Your task to perform on an android device: toggle location history Image 0: 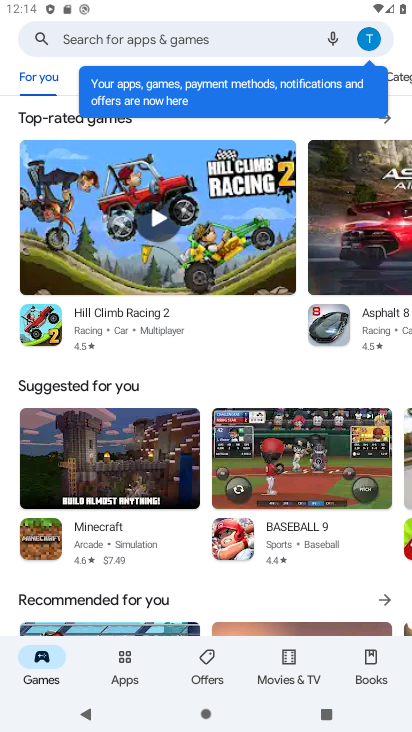
Step 0: press home button
Your task to perform on an android device: toggle location history Image 1: 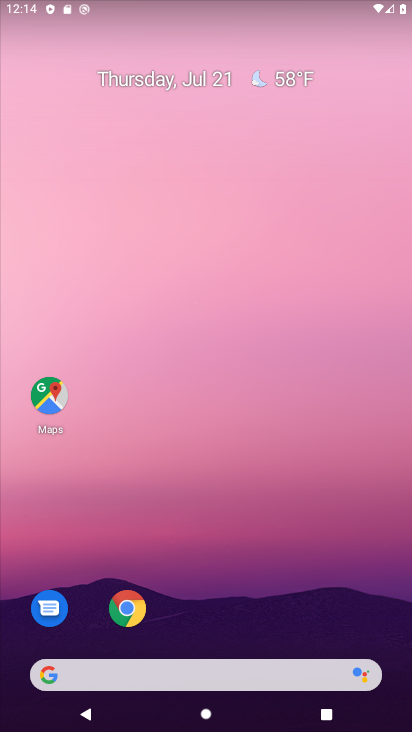
Step 1: drag from (216, 638) to (252, 143)
Your task to perform on an android device: toggle location history Image 2: 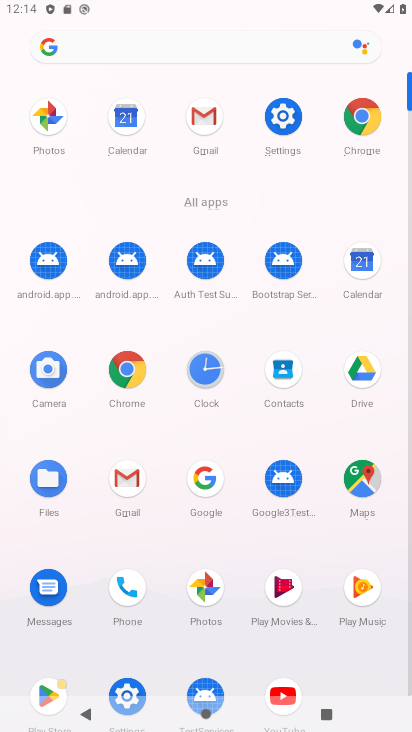
Step 2: click (280, 118)
Your task to perform on an android device: toggle location history Image 3: 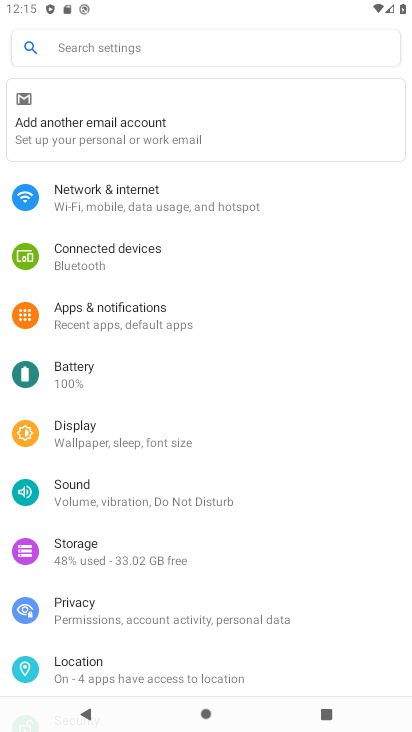
Step 3: click (101, 662)
Your task to perform on an android device: toggle location history Image 4: 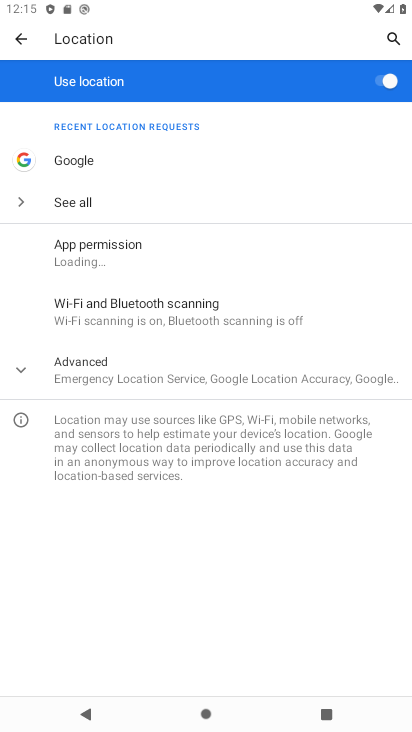
Step 4: click (20, 368)
Your task to perform on an android device: toggle location history Image 5: 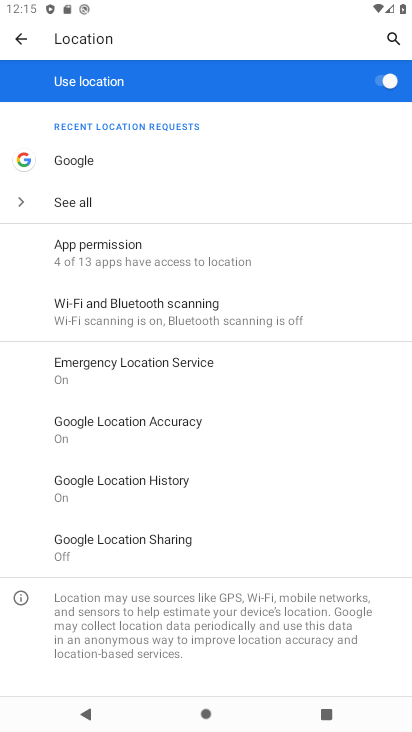
Step 5: click (111, 484)
Your task to perform on an android device: toggle location history Image 6: 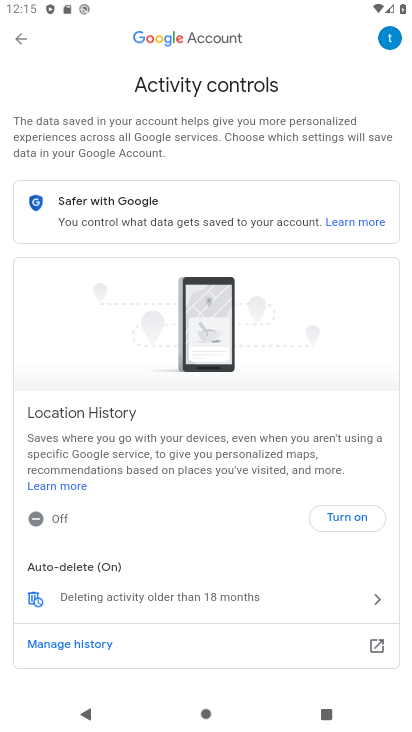
Step 6: task complete